Your task to perform on an android device: Open Google Chrome and open the bookmarks view Image 0: 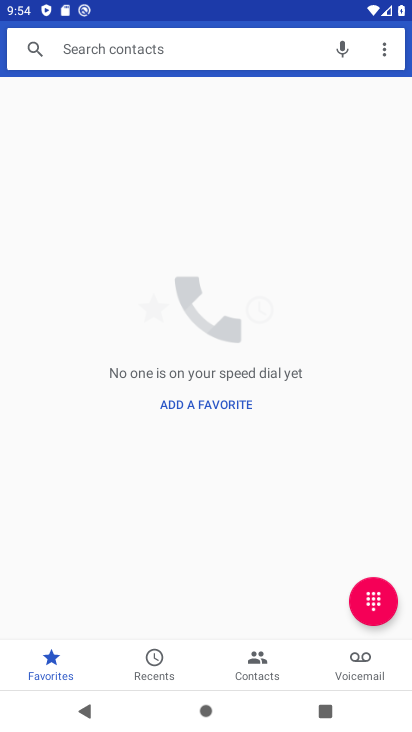
Step 0: press home button
Your task to perform on an android device: Open Google Chrome and open the bookmarks view Image 1: 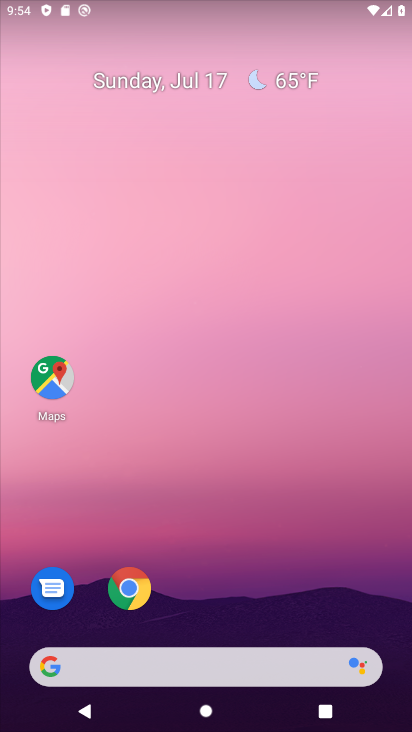
Step 1: click (133, 587)
Your task to perform on an android device: Open Google Chrome and open the bookmarks view Image 2: 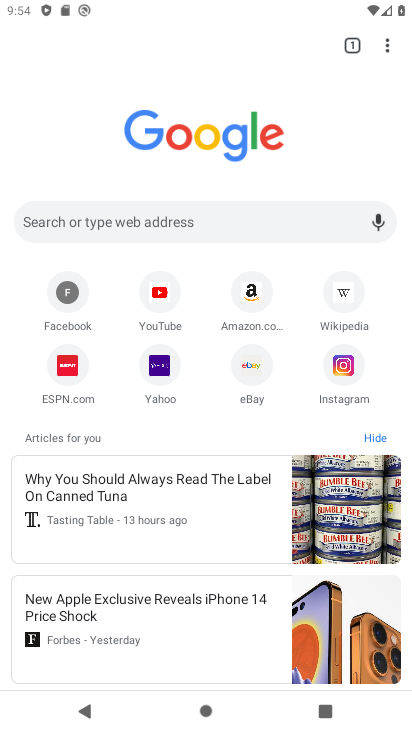
Step 2: click (384, 45)
Your task to perform on an android device: Open Google Chrome and open the bookmarks view Image 3: 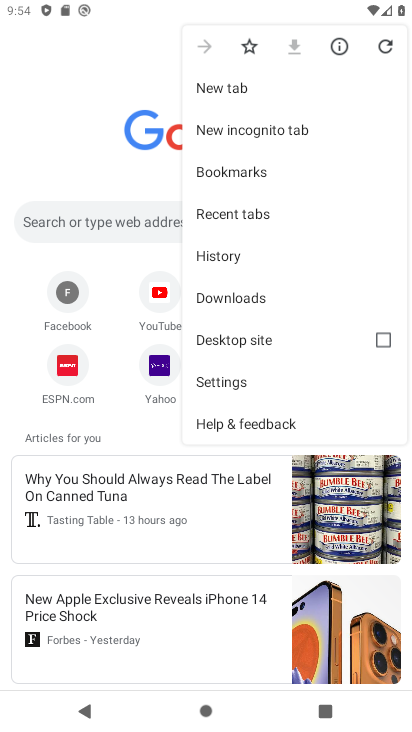
Step 3: click (256, 170)
Your task to perform on an android device: Open Google Chrome and open the bookmarks view Image 4: 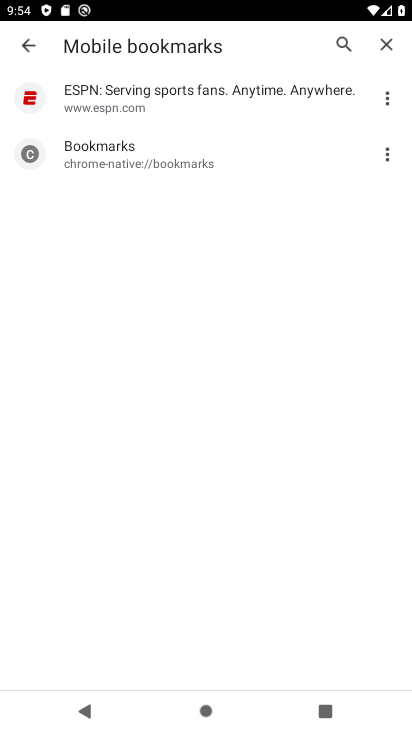
Step 4: click (392, 100)
Your task to perform on an android device: Open Google Chrome and open the bookmarks view Image 5: 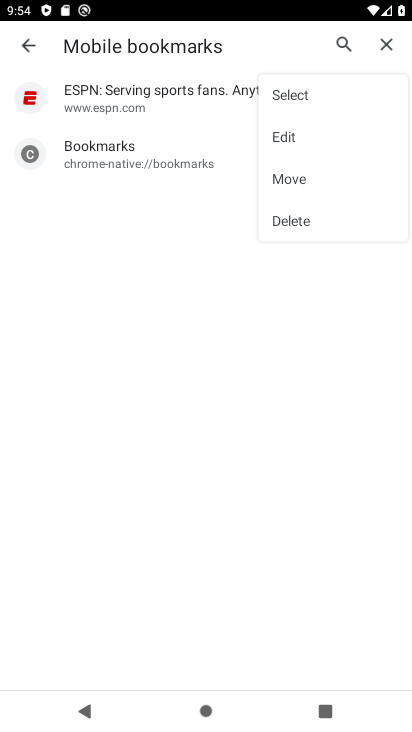
Step 5: click (281, 142)
Your task to perform on an android device: Open Google Chrome and open the bookmarks view Image 6: 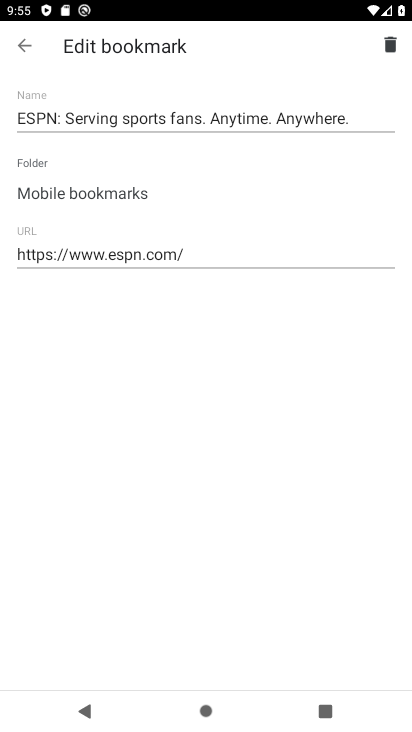
Step 6: task complete